Your task to perform on an android device: toggle airplane mode Image 0: 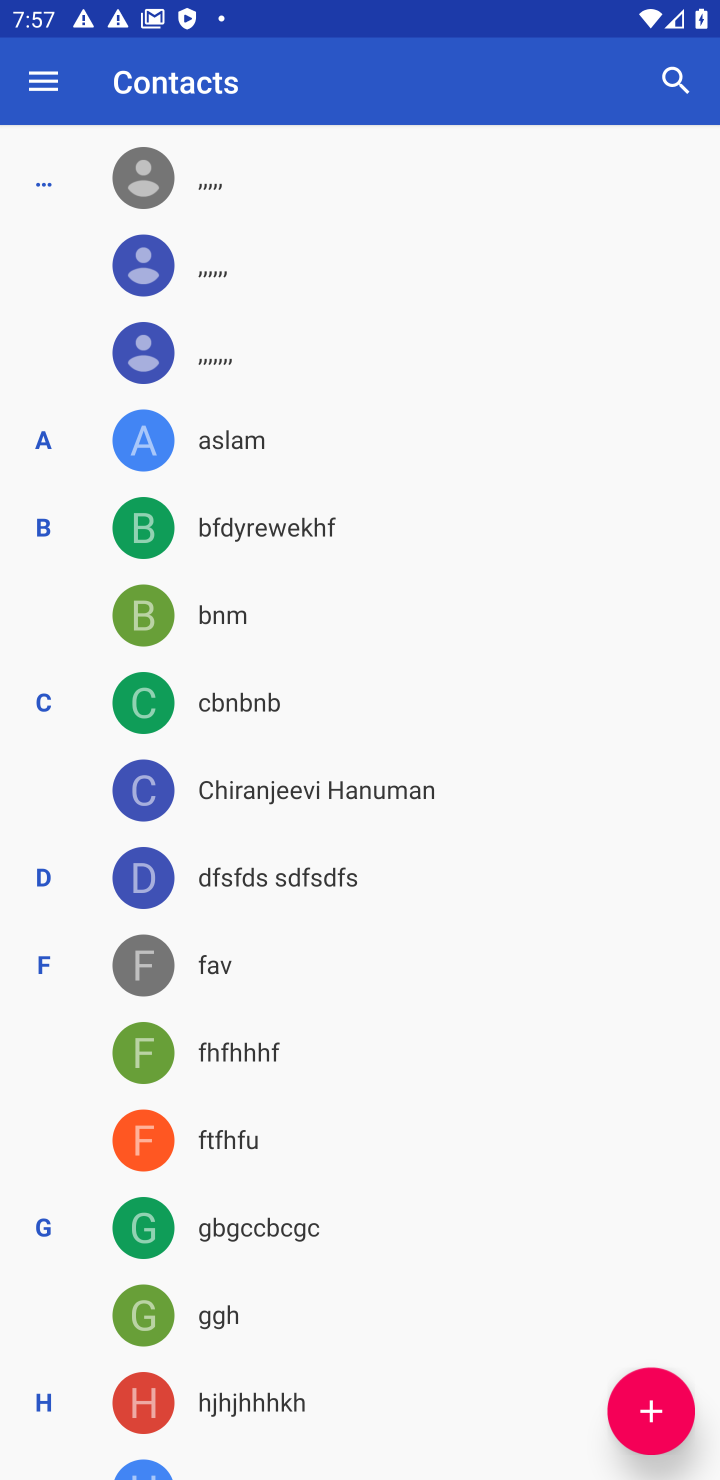
Step 0: press home button
Your task to perform on an android device: toggle airplane mode Image 1: 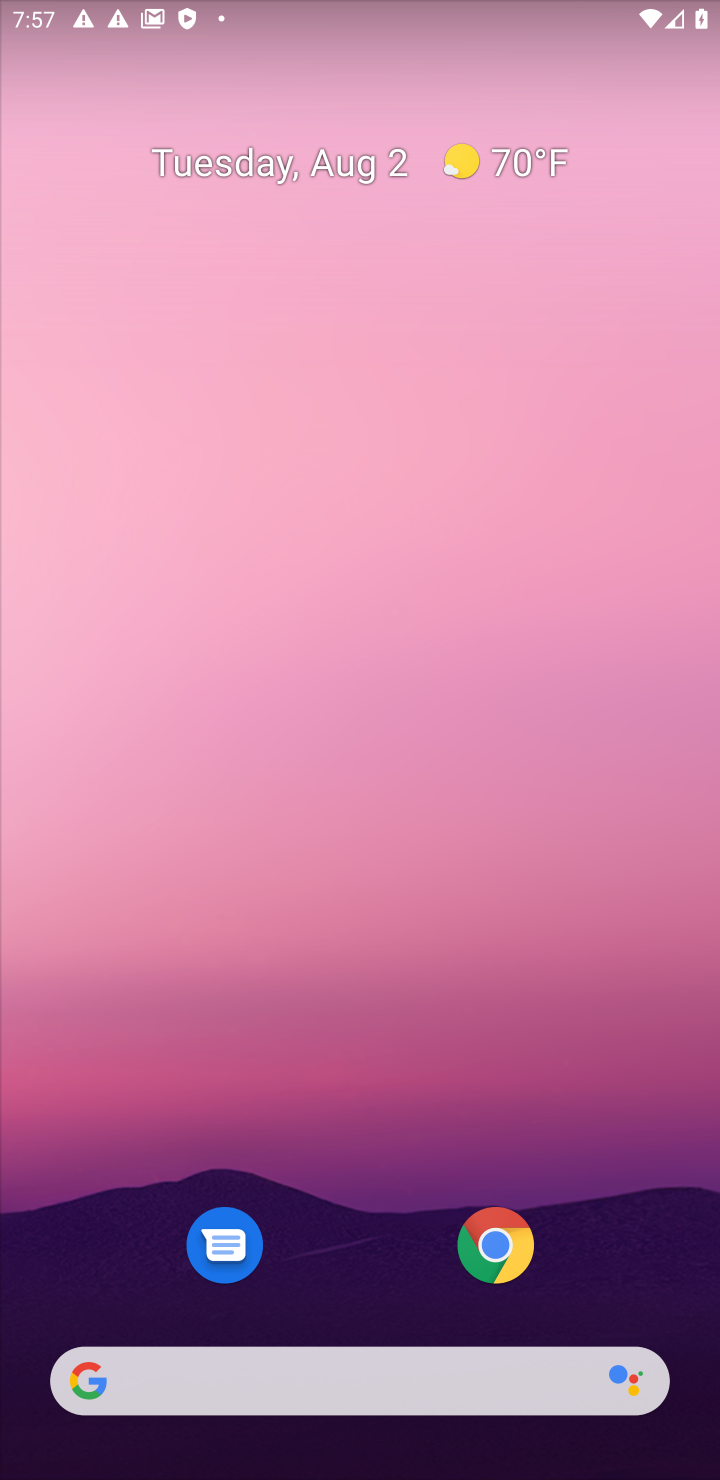
Step 1: click (356, 367)
Your task to perform on an android device: toggle airplane mode Image 2: 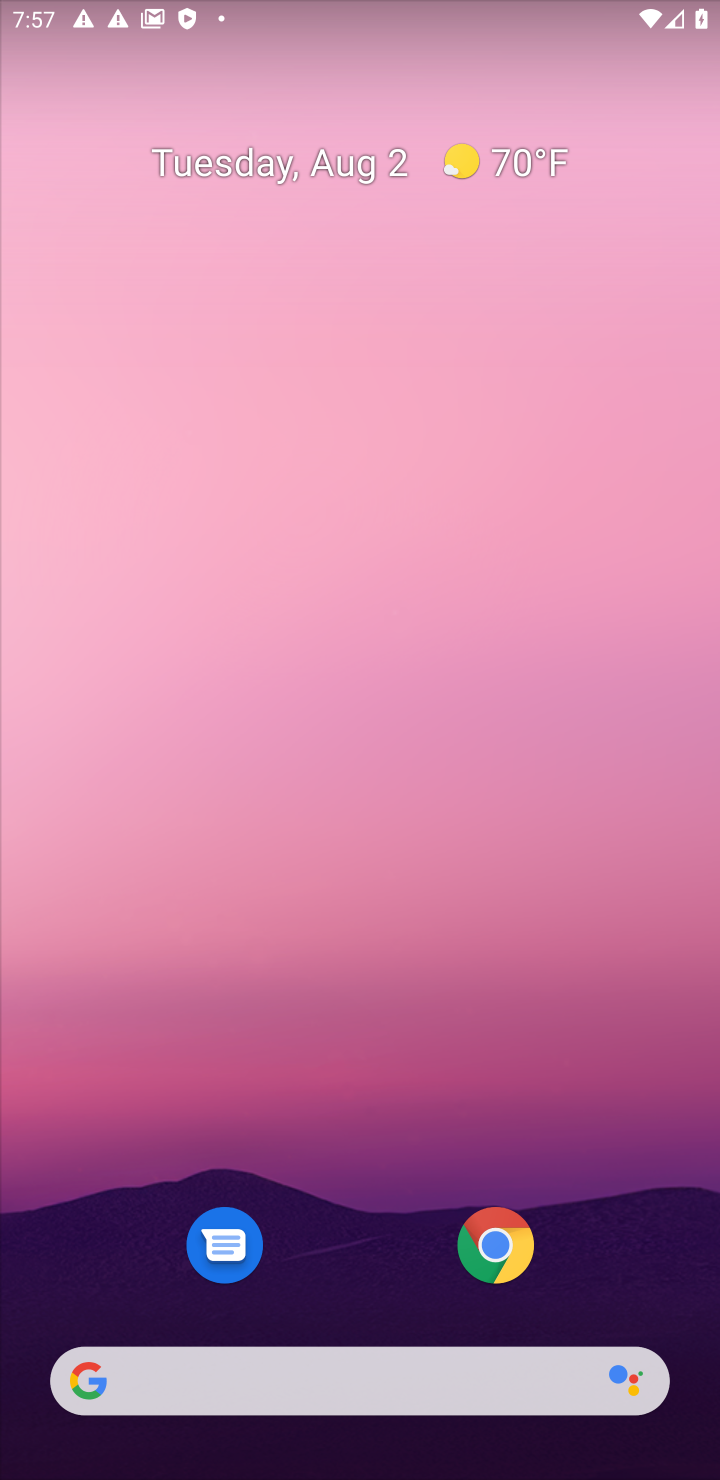
Step 2: drag from (346, 1193) to (424, 69)
Your task to perform on an android device: toggle airplane mode Image 3: 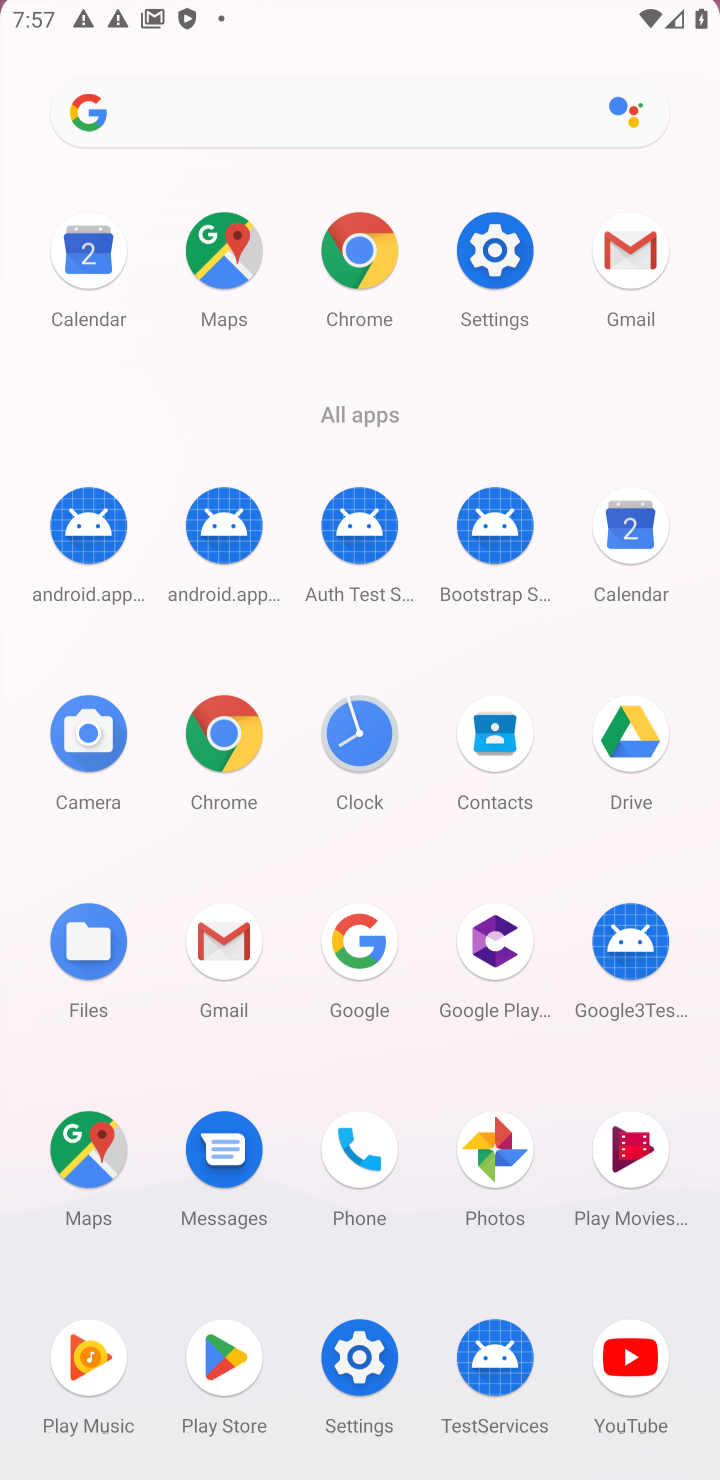
Step 3: click (618, 364)
Your task to perform on an android device: toggle airplane mode Image 4: 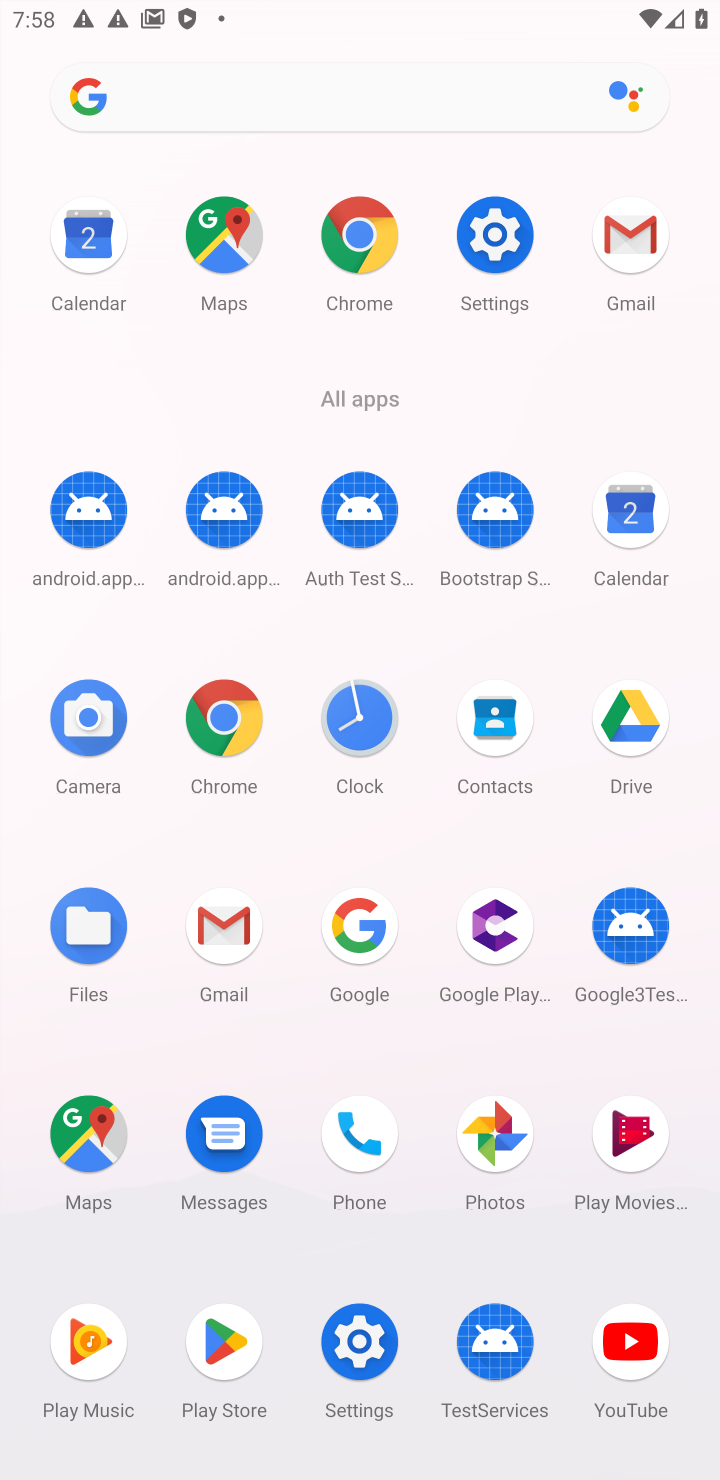
Step 4: click (211, 1327)
Your task to perform on an android device: toggle airplane mode Image 5: 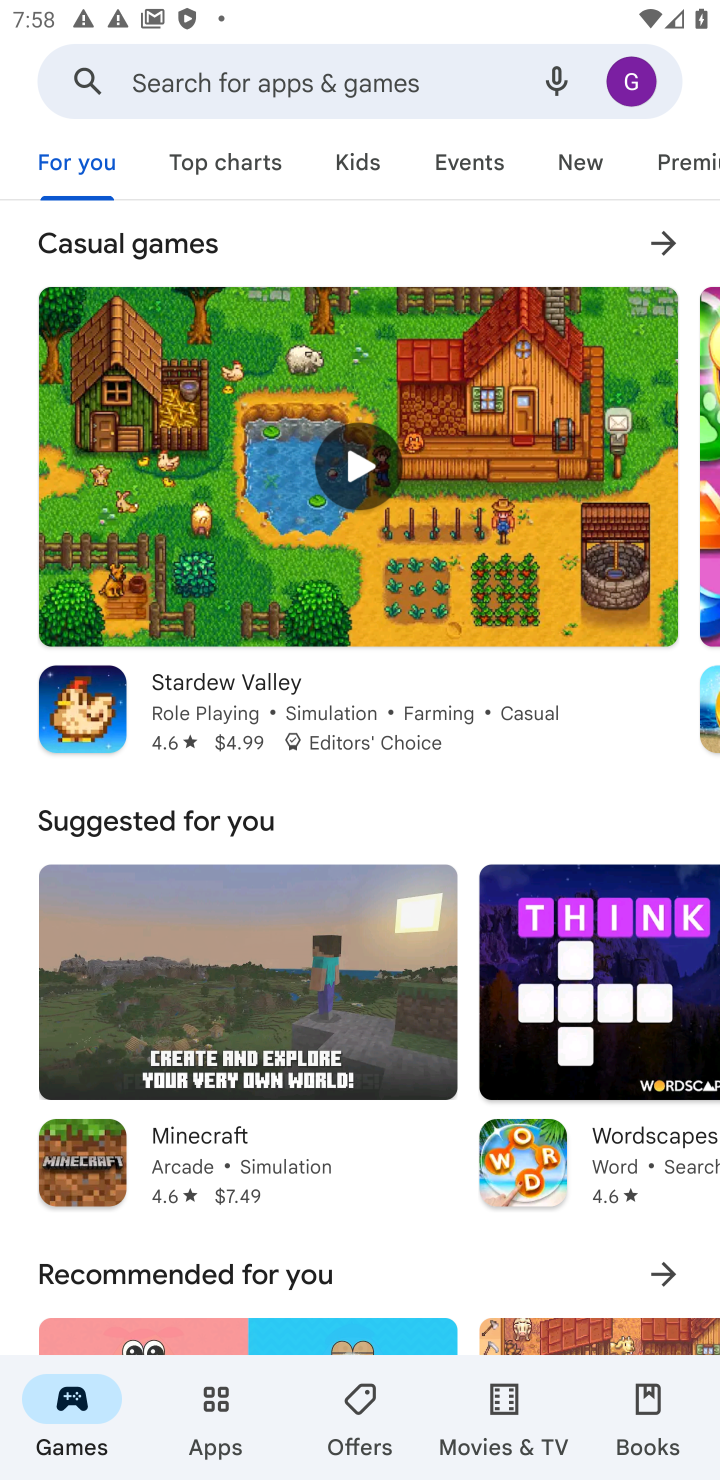
Step 5: press back button
Your task to perform on an android device: toggle airplane mode Image 6: 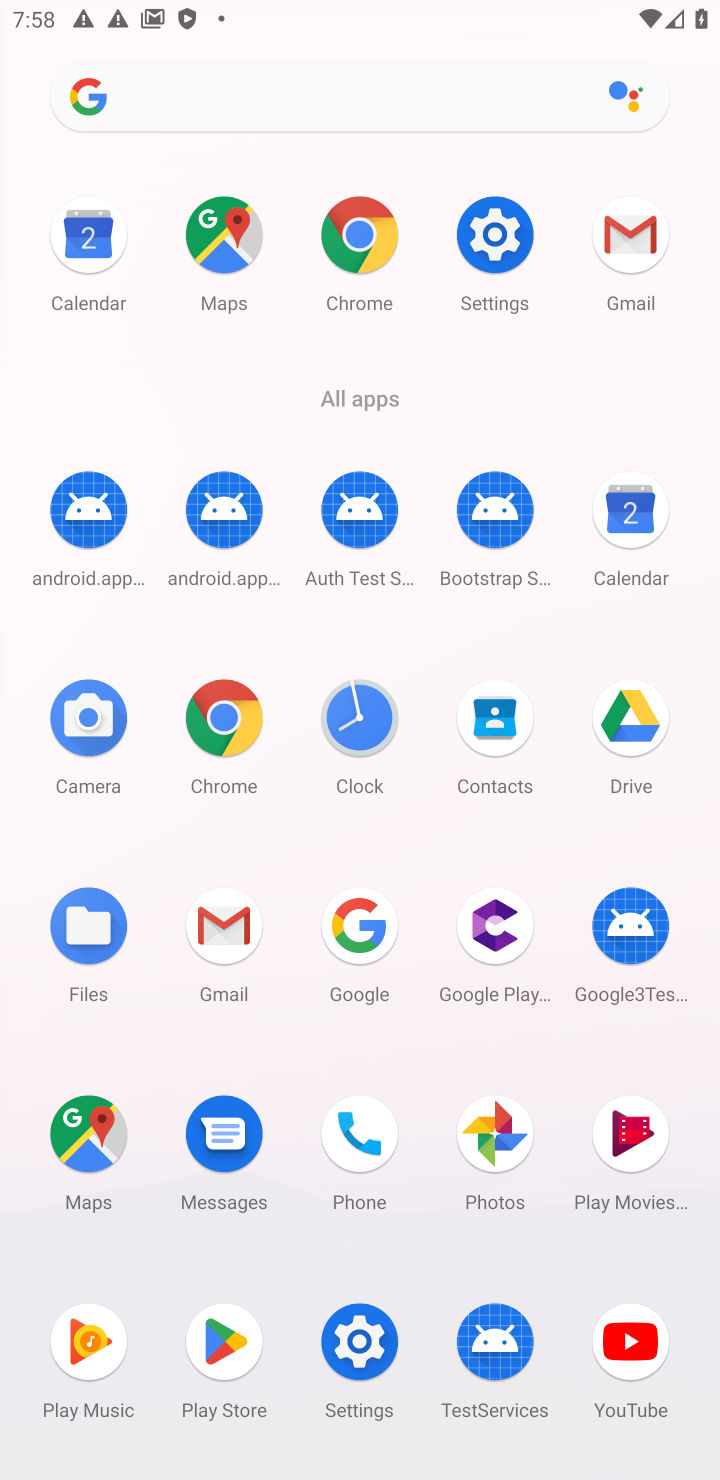
Step 6: click (488, 218)
Your task to perform on an android device: toggle airplane mode Image 7: 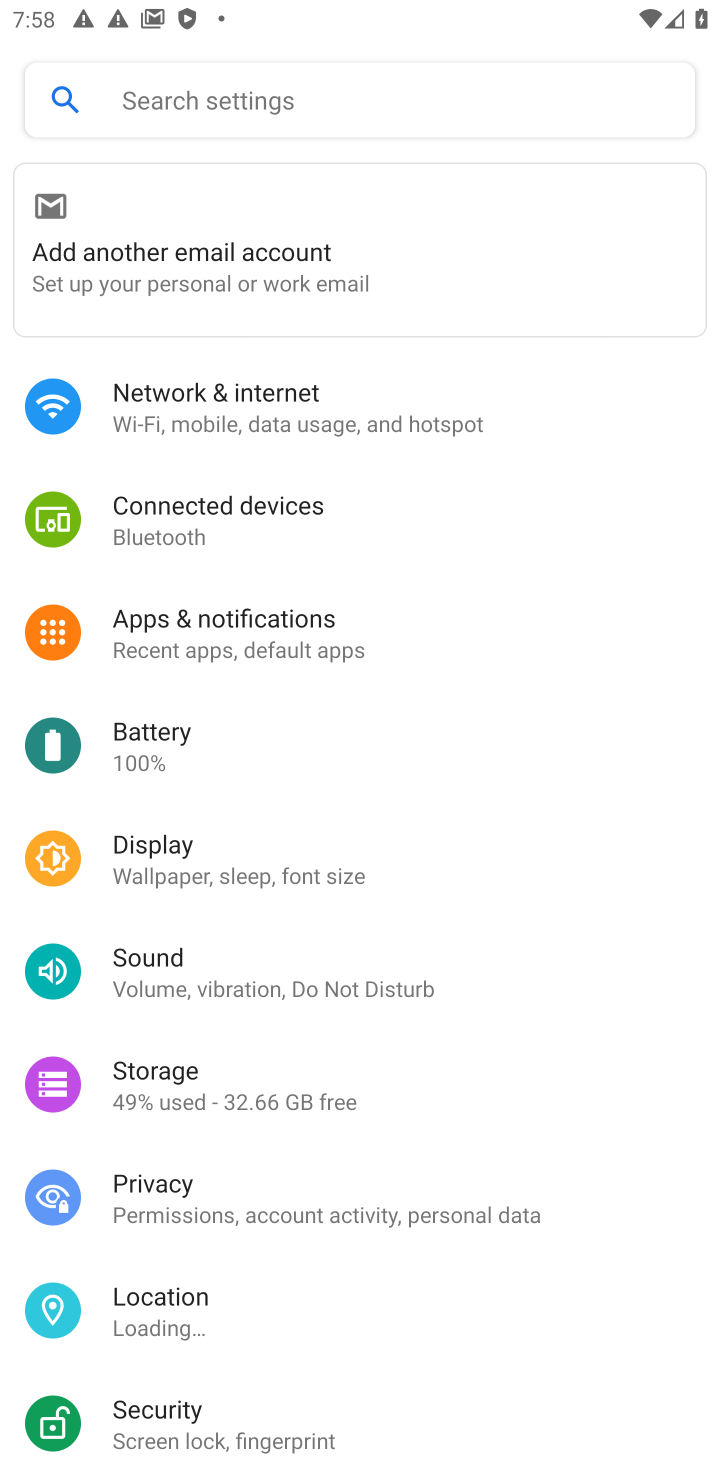
Step 7: click (289, 407)
Your task to perform on an android device: toggle airplane mode Image 8: 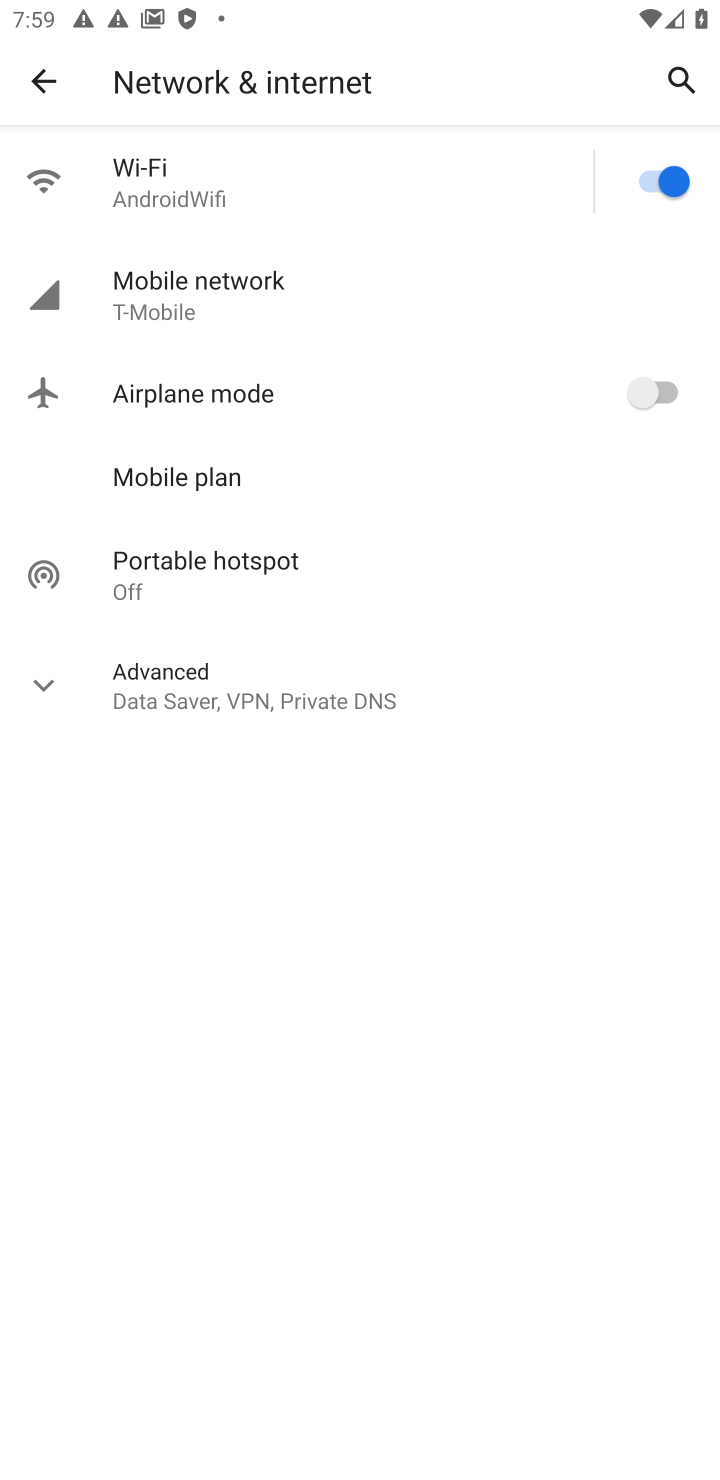
Step 8: click (669, 395)
Your task to perform on an android device: toggle airplane mode Image 9: 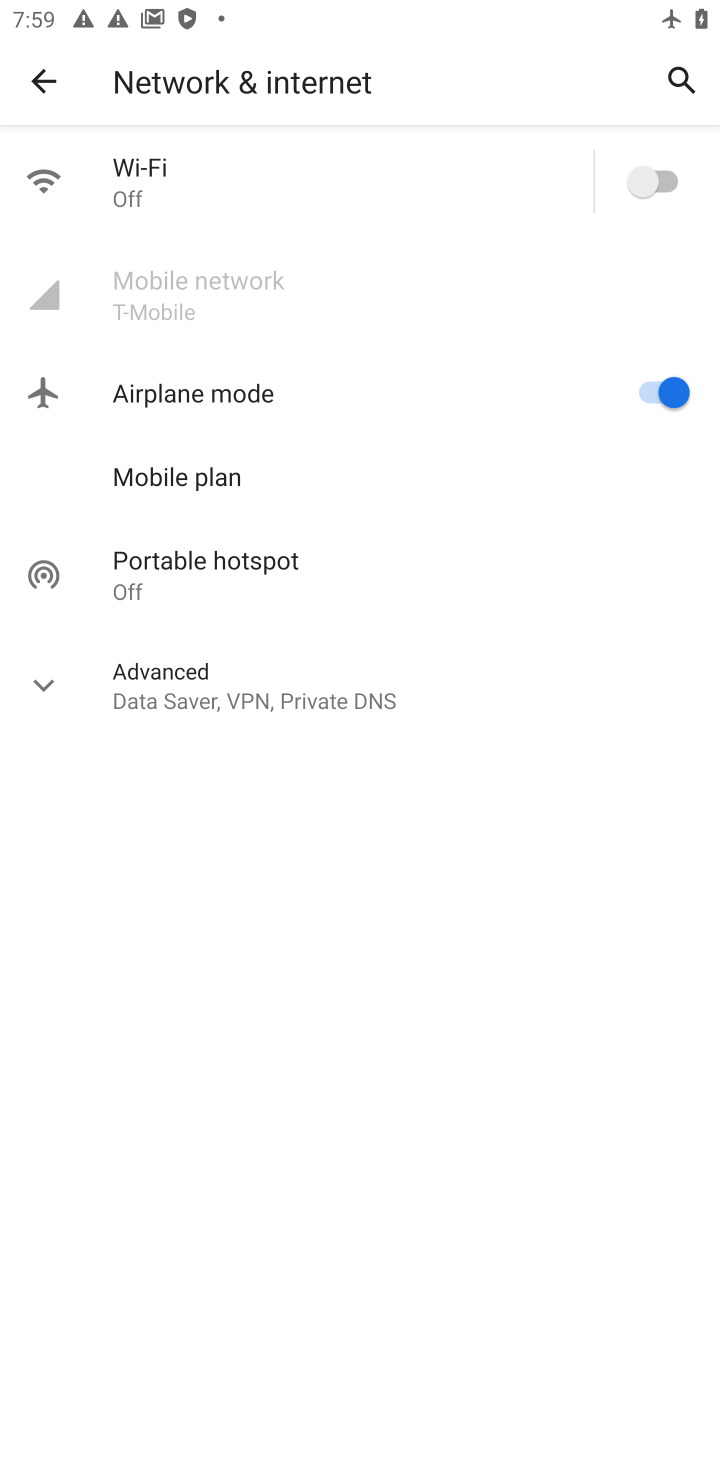
Step 9: task complete